Your task to perform on an android device: Set the phone to "Do not disturb". Image 0: 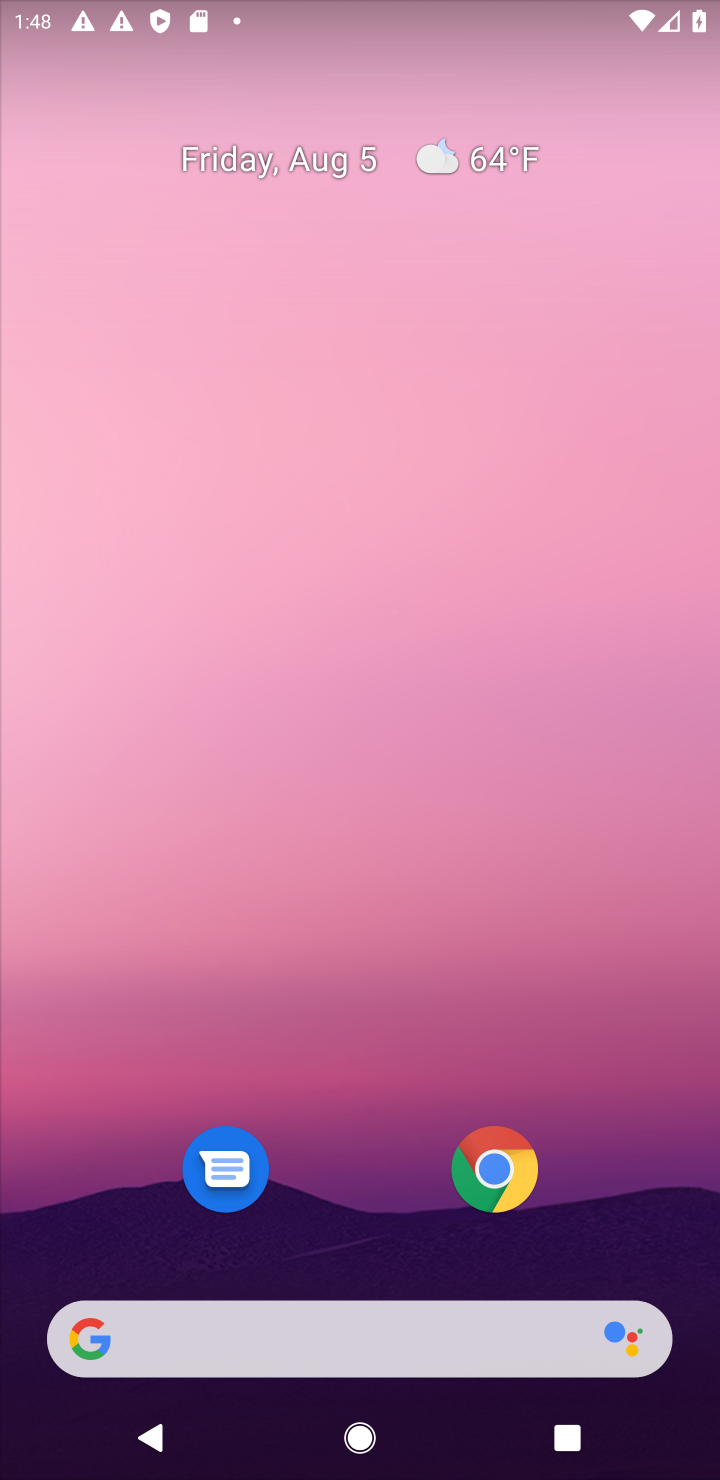
Step 0: drag from (382, 934) to (382, 430)
Your task to perform on an android device: Set the phone to "Do not disturb". Image 1: 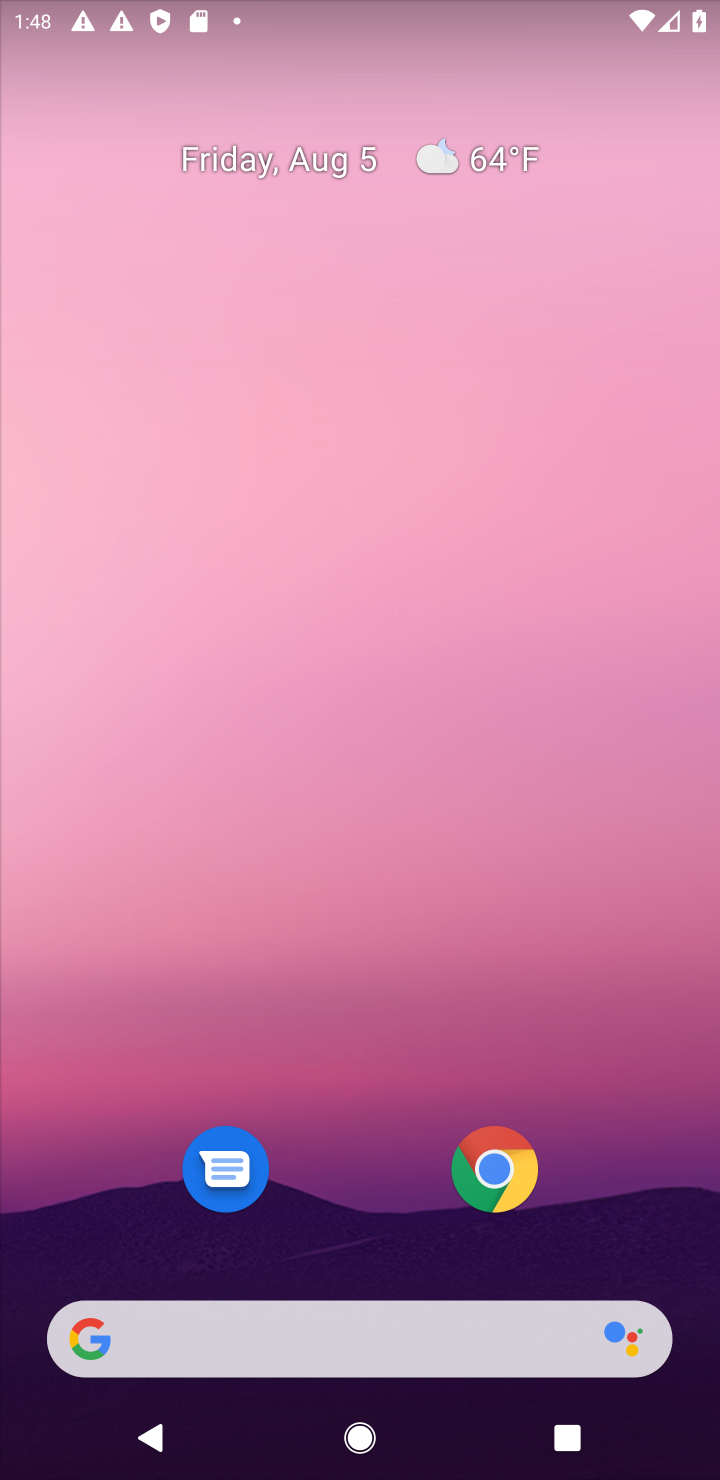
Step 1: drag from (375, 804) to (375, 422)
Your task to perform on an android device: Set the phone to "Do not disturb". Image 2: 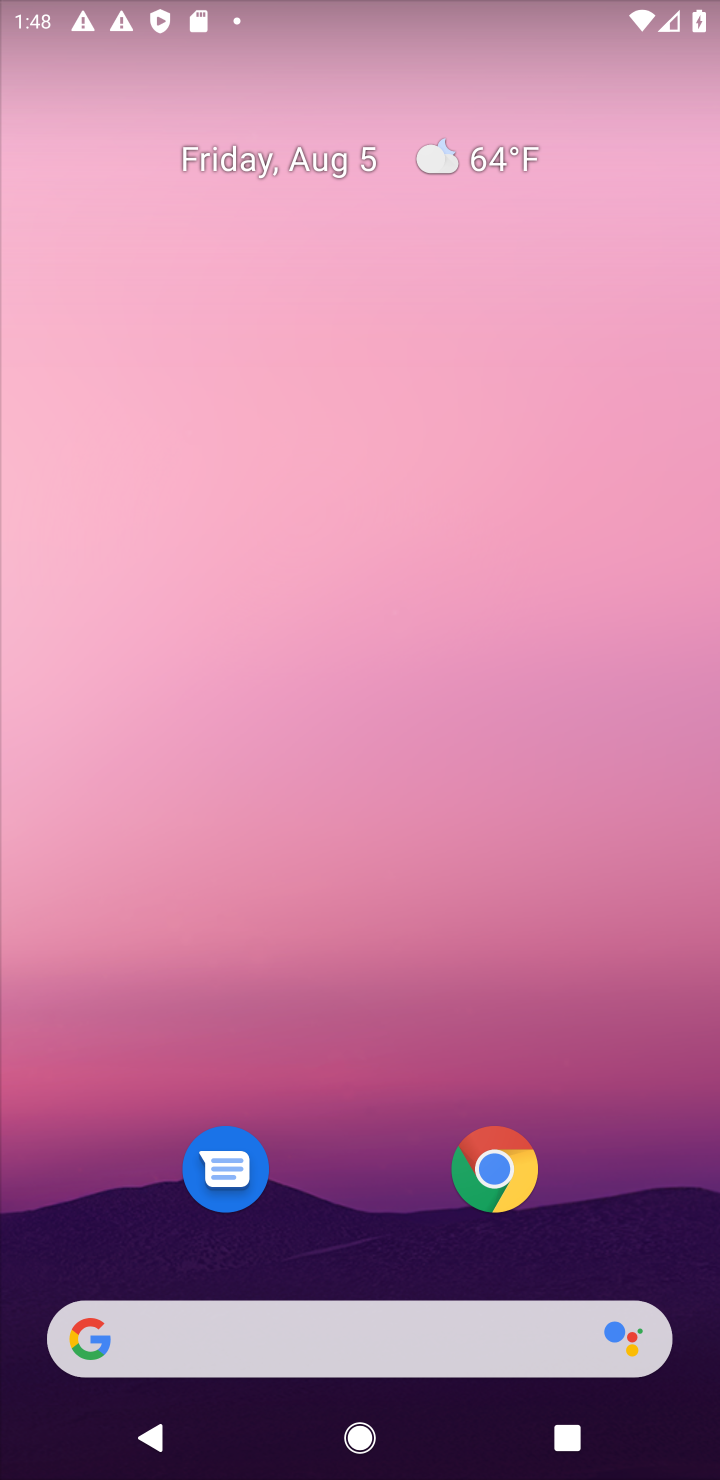
Step 2: drag from (332, 1241) to (332, 343)
Your task to perform on an android device: Set the phone to "Do not disturb". Image 3: 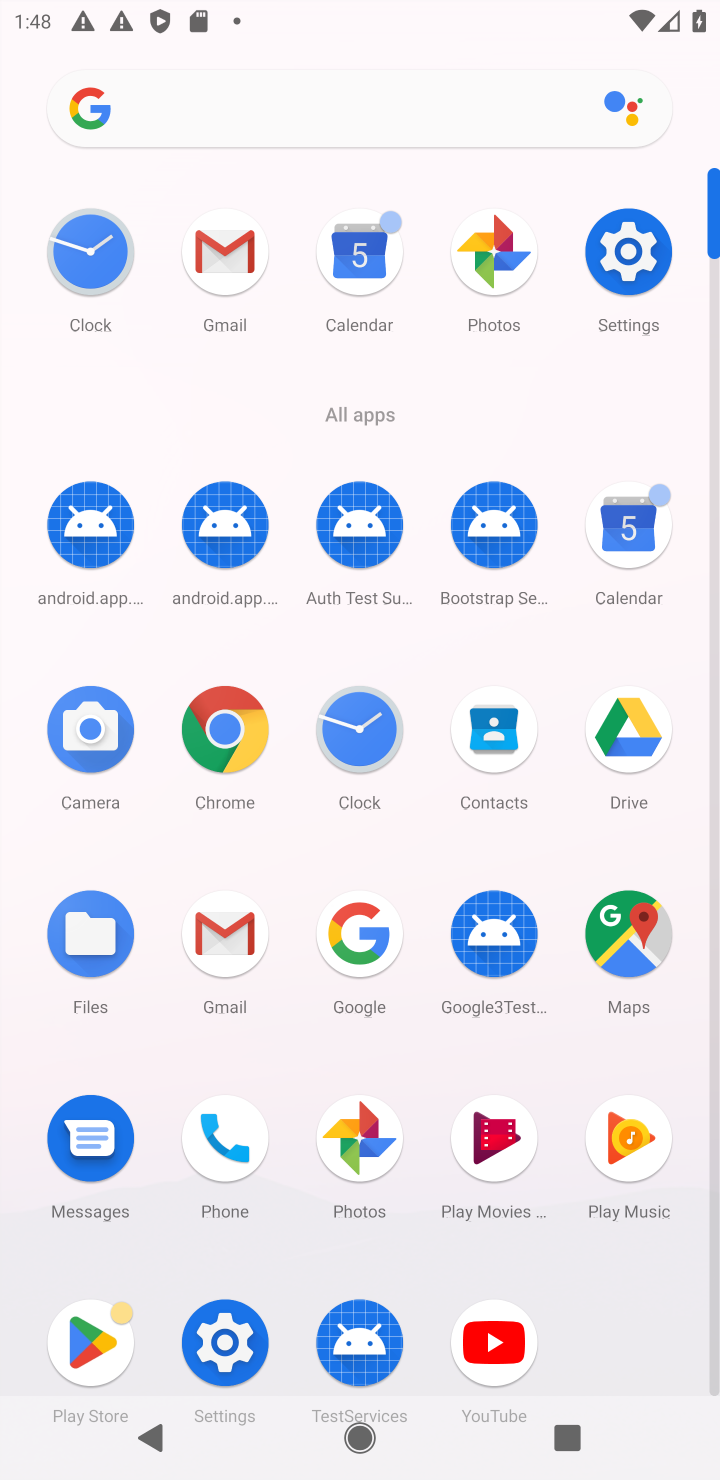
Step 3: click (614, 304)
Your task to perform on an android device: Set the phone to "Do not disturb". Image 4: 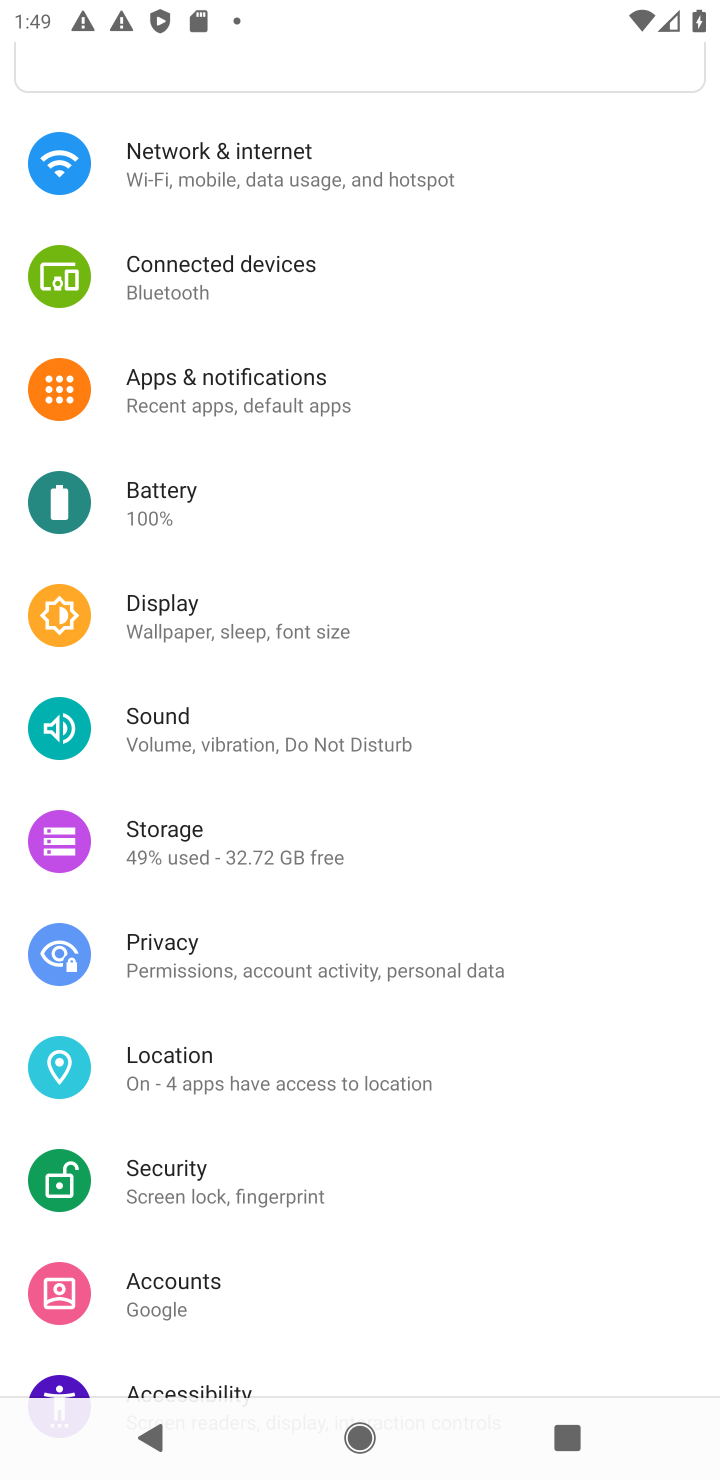
Step 4: click (232, 753)
Your task to perform on an android device: Set the phone to "Do not disturb". Image 5: 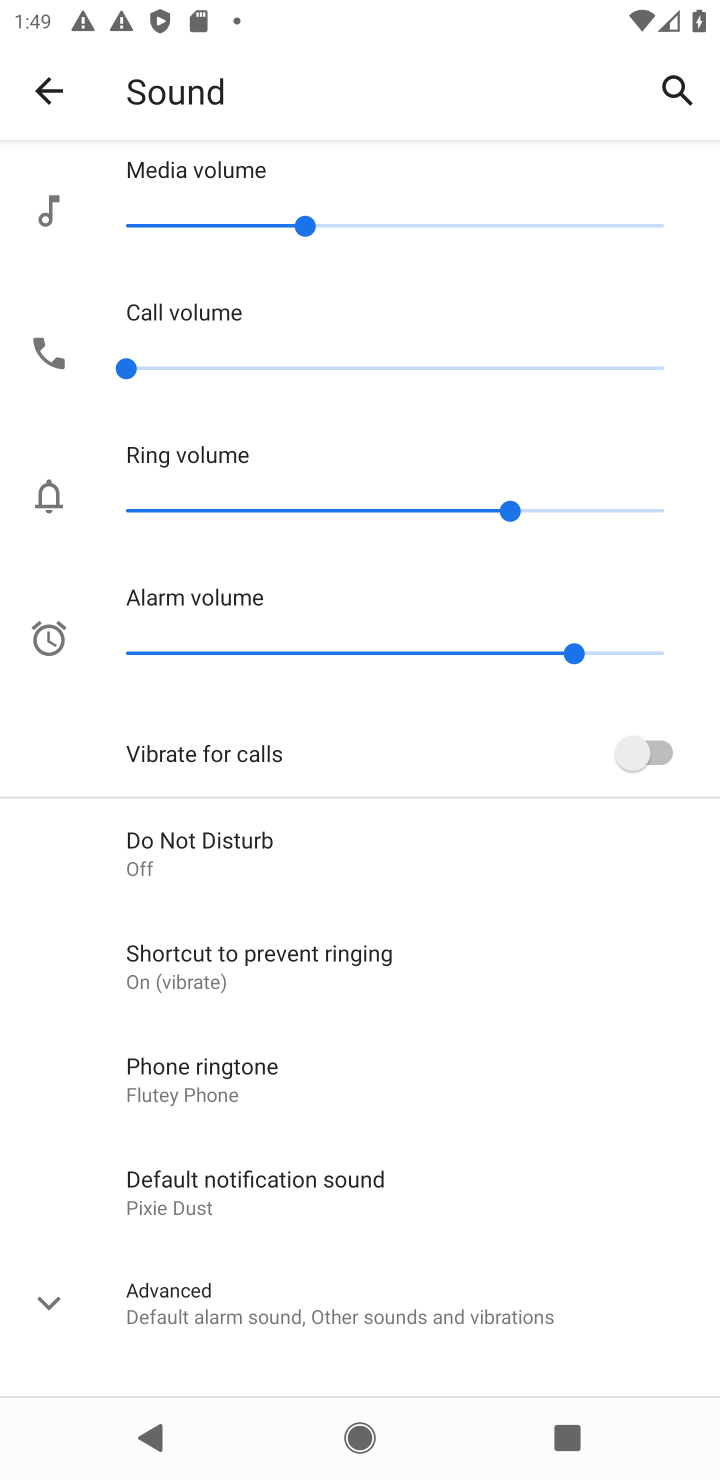
Step 5: click (222, 863)
Your task to perform on an android device: Set the phone to "Do not disturb". Image 6: 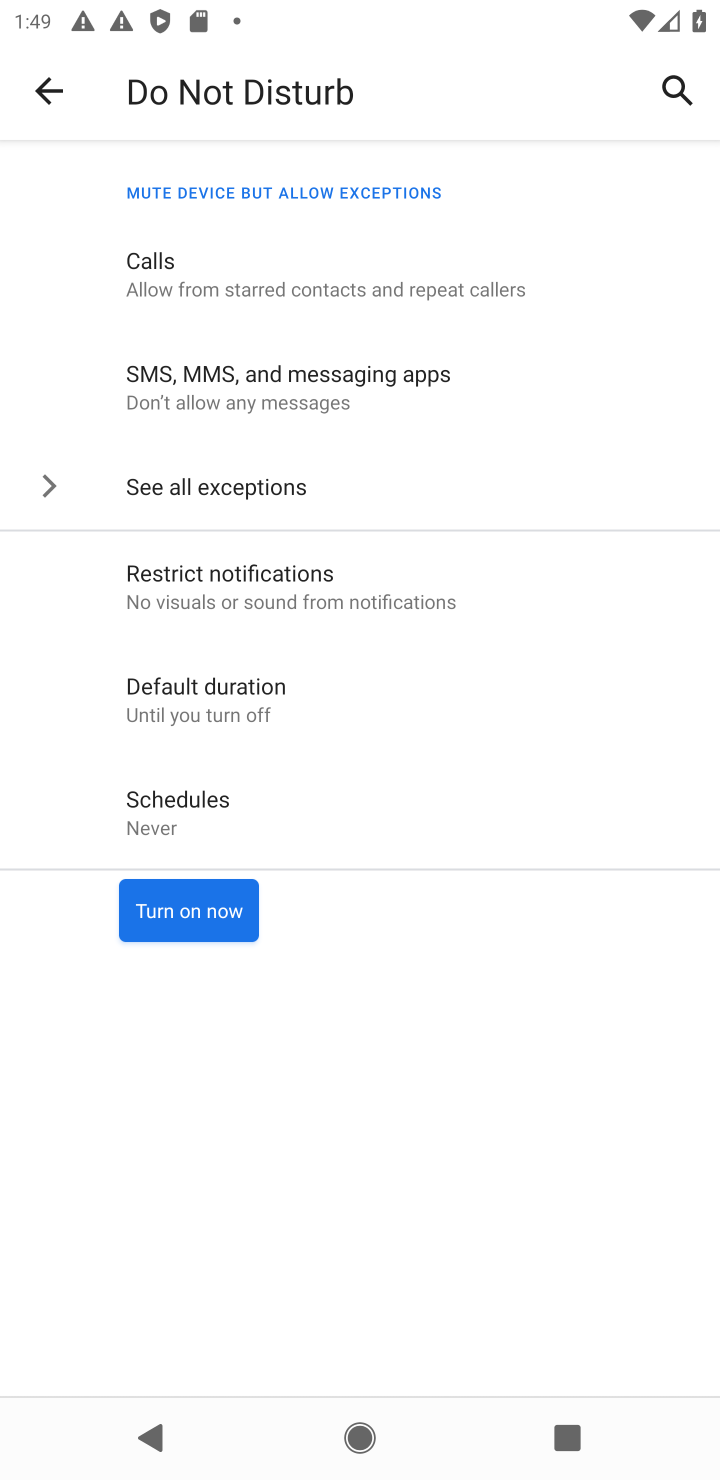
Step 6: click (184, 918)
Your task to perform on an android device: Set the phone to "Do not disturb". Image 7: 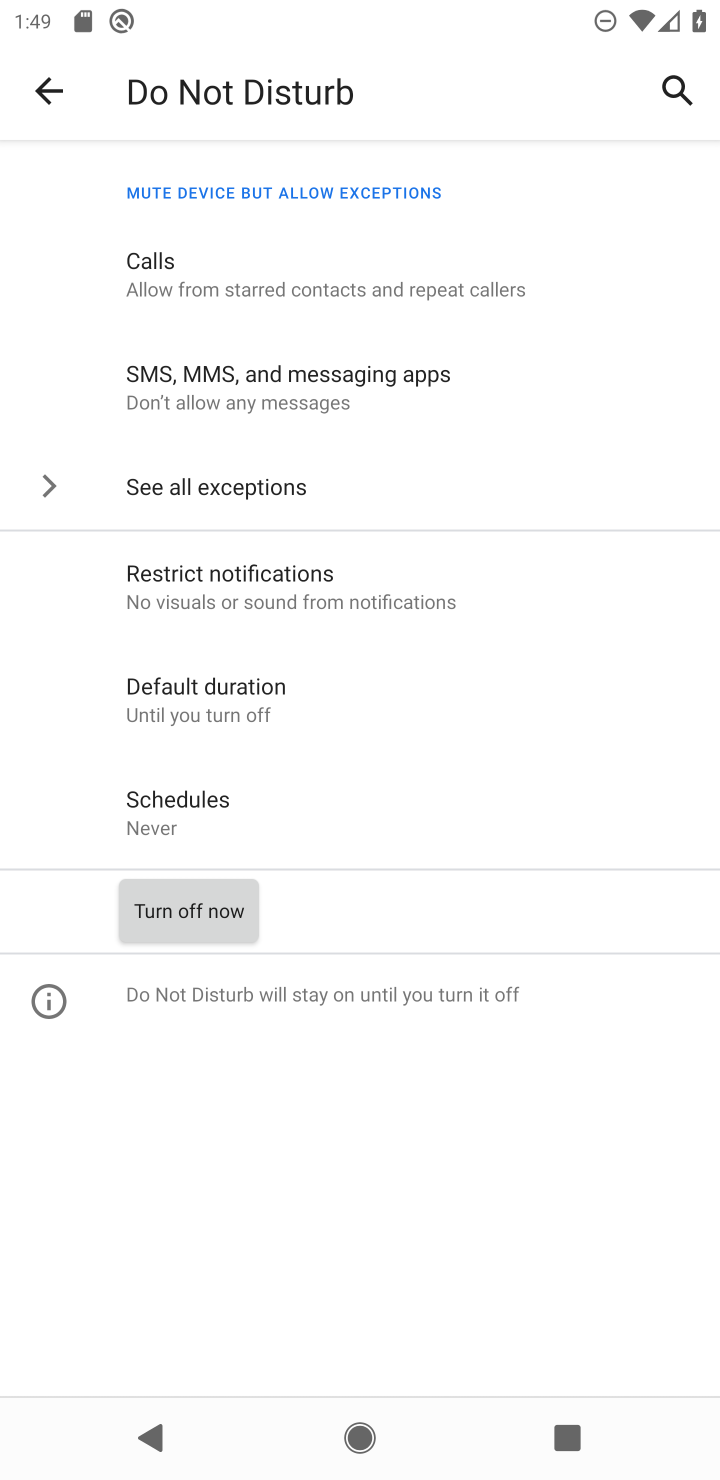
Step 7: task complete